Your task to perform on an android device: Go to battery settings Image 0: 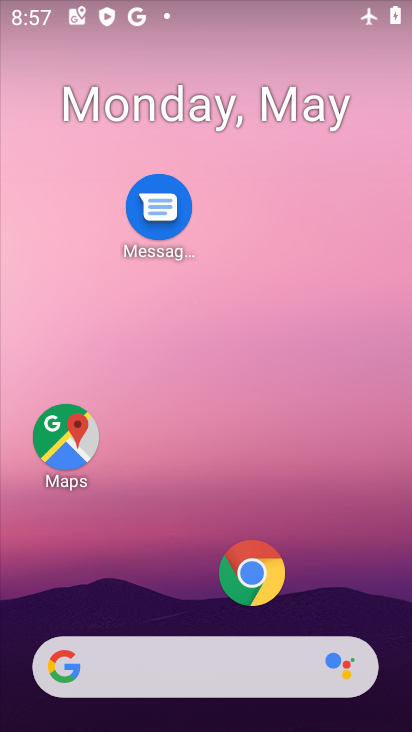
Step 0: drag from (175, 626) to (207, 156)
Your task to perform on an android device: Go to battery settings Image 1: 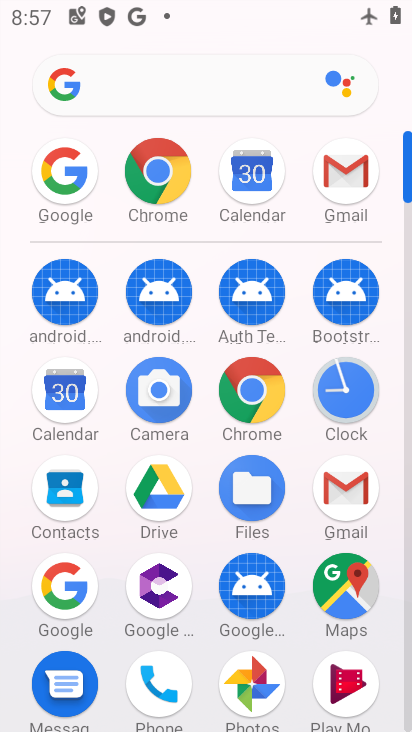
Step 1: drag from (162, 548) to (209, 241)
Your task to perform on an android device: Go to battery settings Image 2: 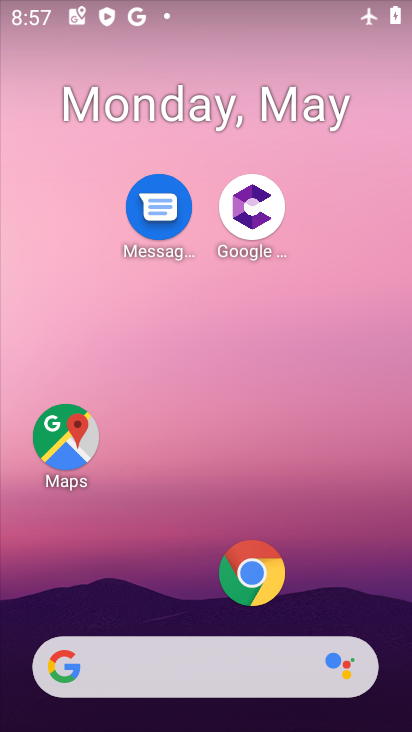
Step 2: drag from (145, 633) to (193, 147)
Your task to perform on an android device: Go to battery settings Image 3: 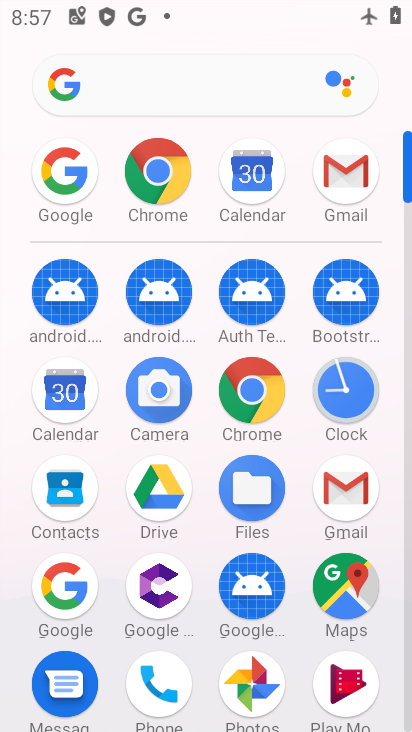
Step 3: drag from (162, 605) to (205, 239)
Your task to perform on an android device: Go to battery settings Image 4: 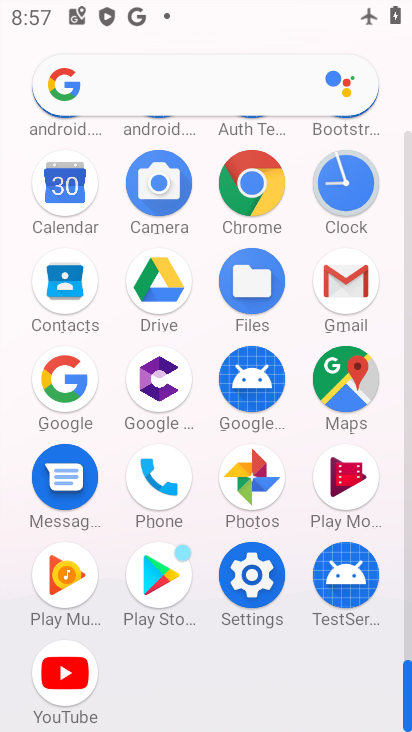
Step 4: click (265, 586)
Your task to perform on an android device: Go to battery settings Image 5: 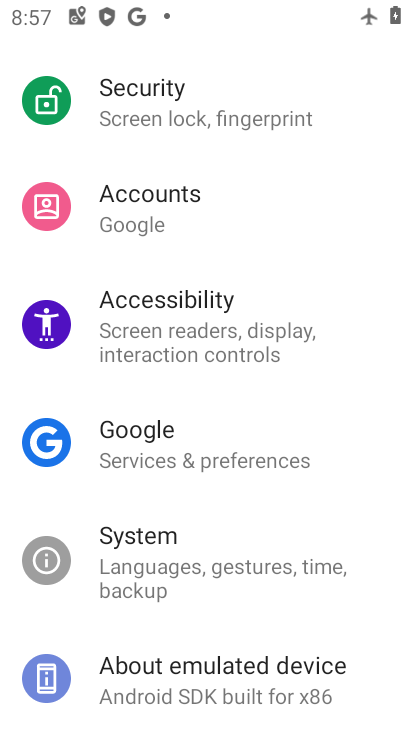
Step 5: drag from (230, 287) to (205, 672)
Your task to perform on an android device: Go to battery settings Image 6: 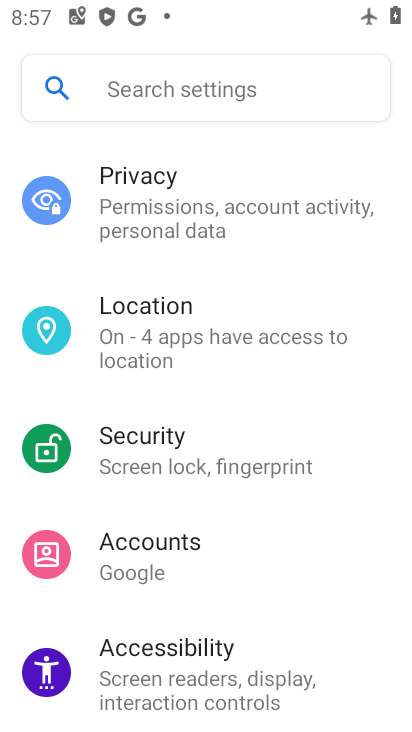
Step 6: drag from (225, 336) to (220, 683)
Your task to perform on an android device: Go to battery settings Image 7: 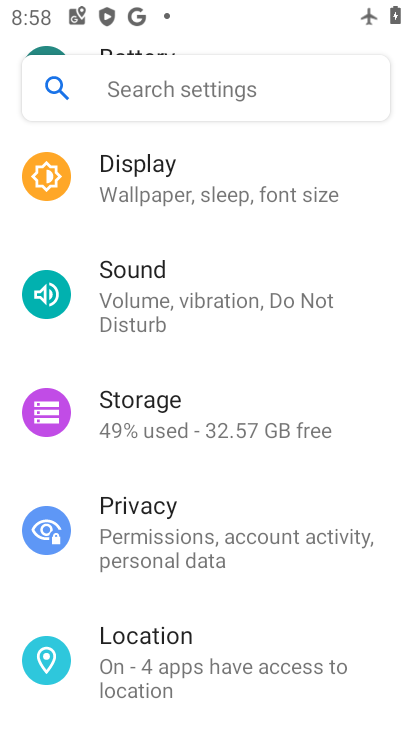
Step 7: drag from (207, 216) to (208, 636)
Your task to perform on an android device: Go to battery settings Image 8: 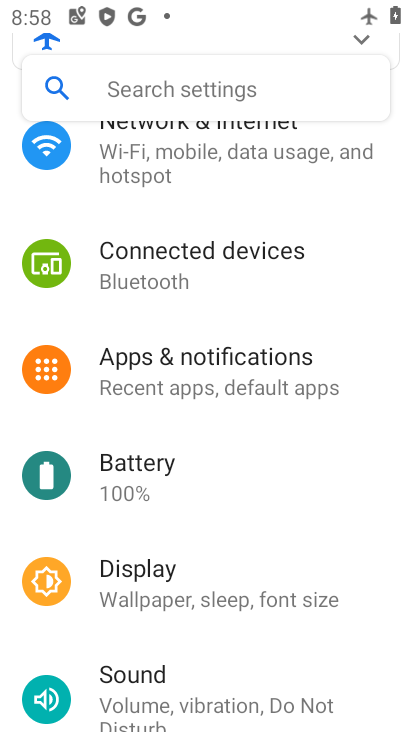
Step 8: click (216, 493)
Your task to perform on an android device: Go to battery settings Image 9: 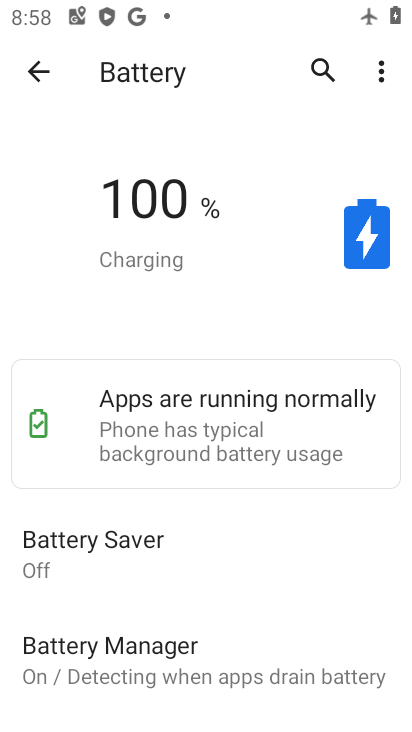
Step 9: task complete